Your task to perform on an android device: Open CNN.com Image 0: 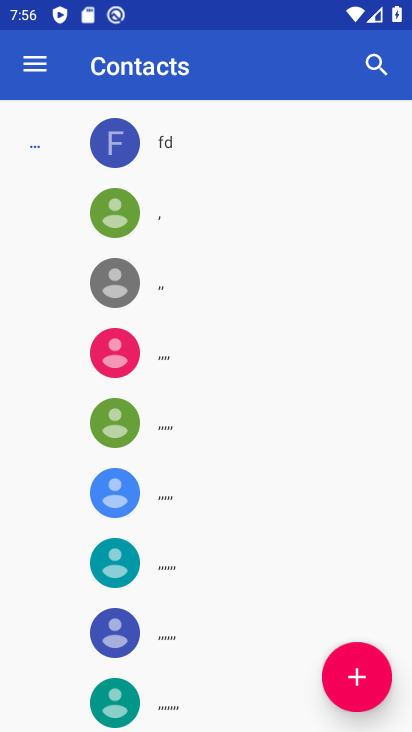
Step 0: press home button
Your task to perform on an android device: Open CNN.com Image 1: 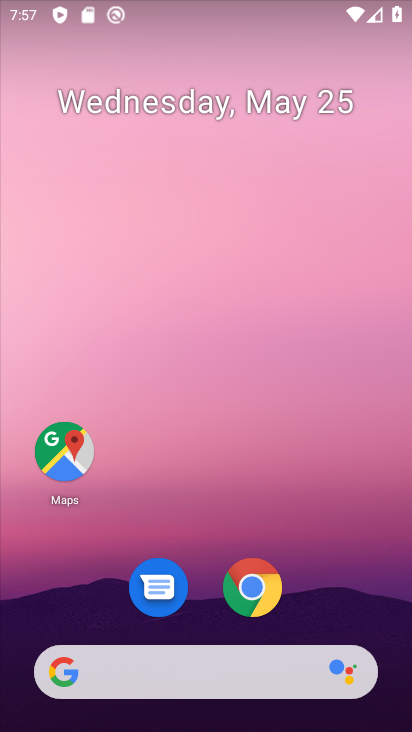
Step 1: click (253, 590)
Your task to perform on an android device: Open CNN.com Image 2: 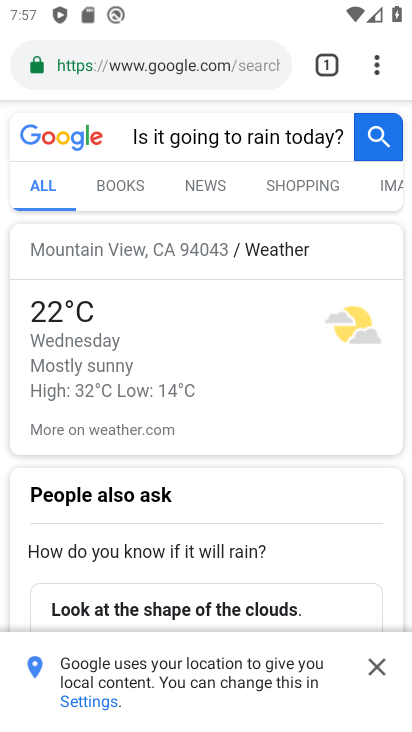
Step 2: click (200, 66)
Your task to perform on an android device: Open CNN.com Image 3: 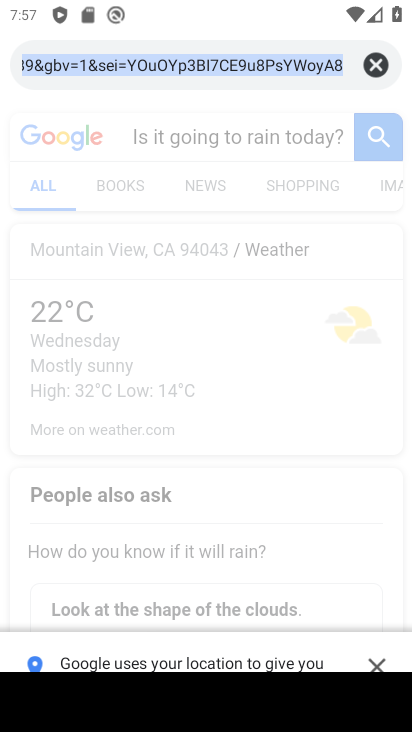
Step 3: click (373, 67)
Your task to perform on an android device: Open CNN.com Image 4: 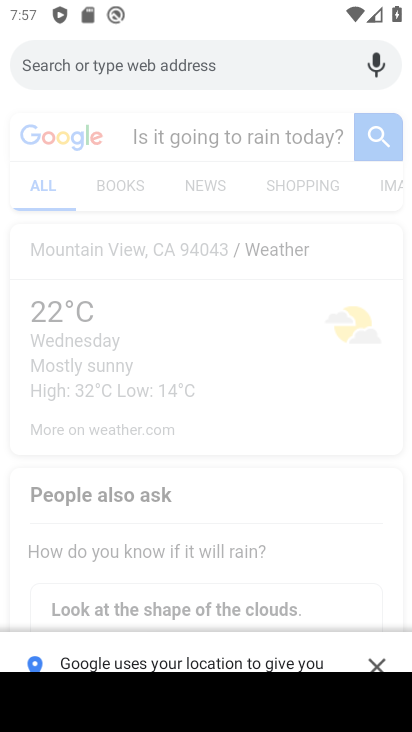
Step 4: type " CNN.com"
Your task to perform on an android device: Open CNN.com Image 5: 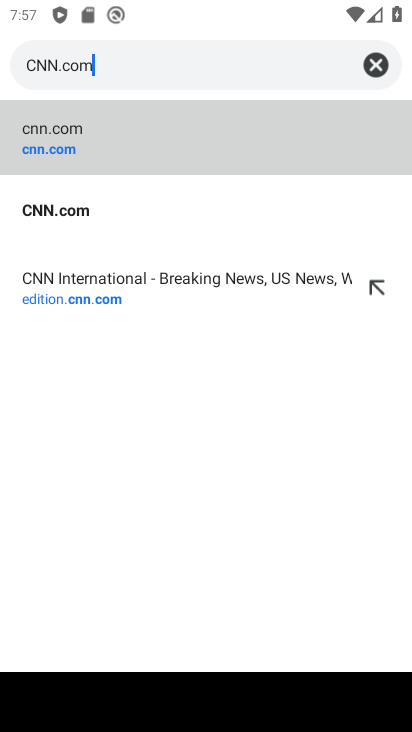
Step 5: click (42, 147)
Your task to perform on an android device: Open CNN.com Image 6: 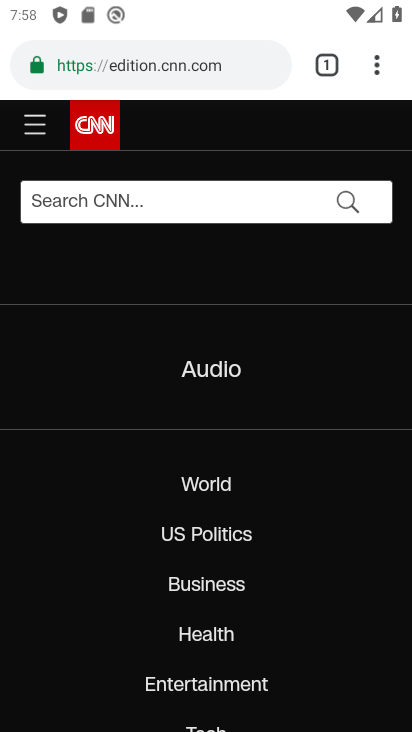
Step 6: task complete